Your task to perform on an android device: Open the calendar and show me this week's events Image 0: 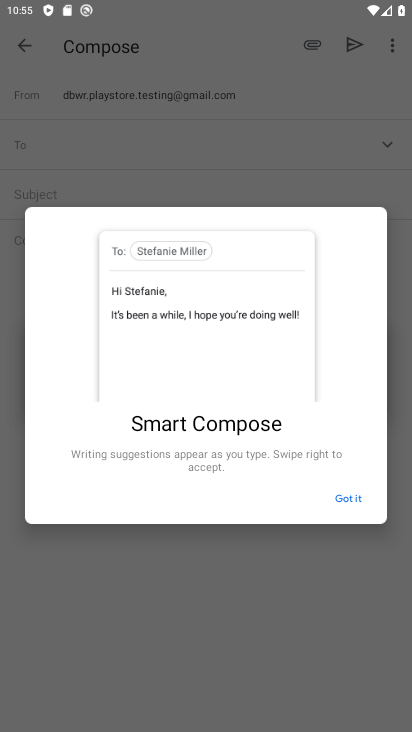
Step 0: press home button
Your task to perform on an android device: Open the calendar and show me this week's events Image 1: 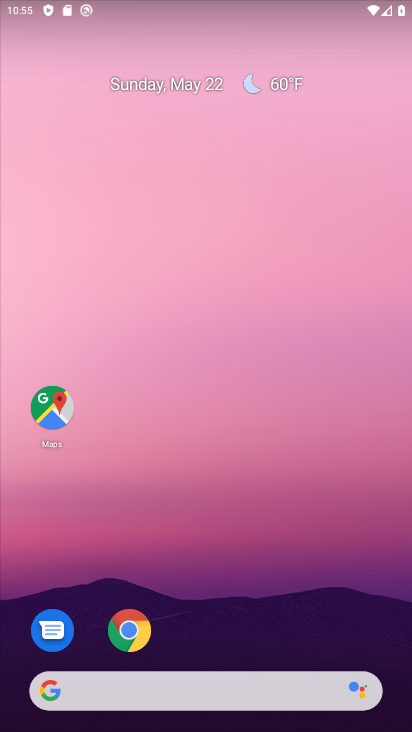
Step 1: drag from (251, 613) to (243, 121)
Your task to perform on an android device: Open the calendar and show me this week's events Image 2: 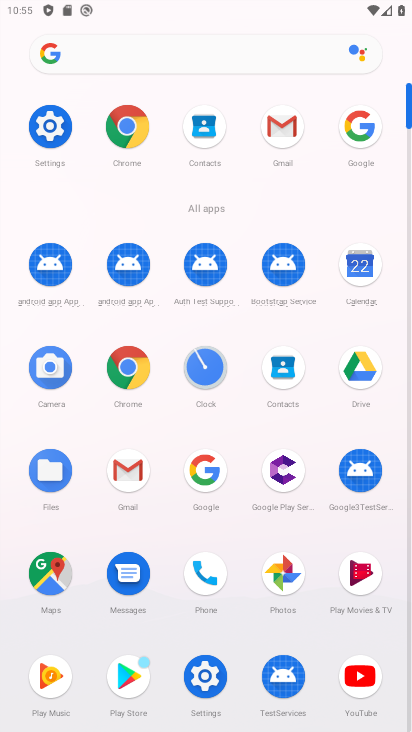
Step 2: click (362, 264)
Your task to perform on an android device: Open the calendar and show me this week's events Image 3: 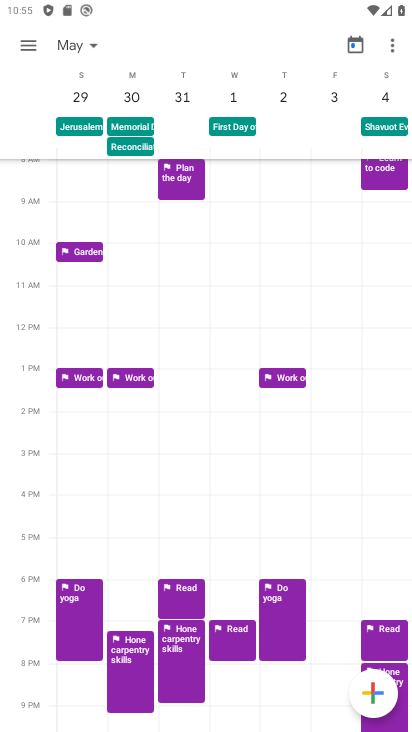
Step 3: click (359, 46)
Your task to perform on an android device: Open the calendar and show me this week's events Image 4: 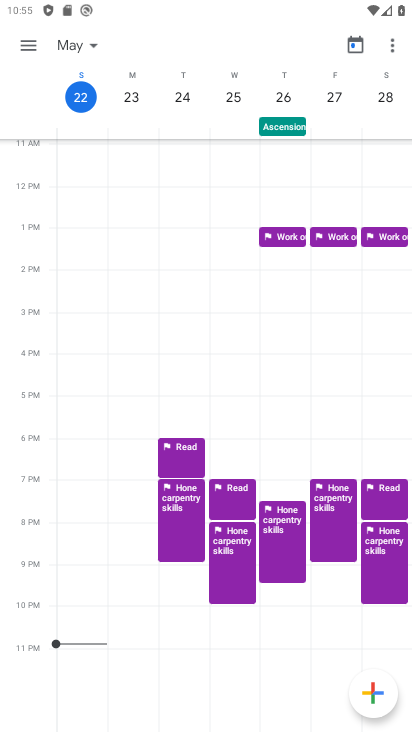
Step 4: click (24, 48)
Your task to perform on an android device: Open the calendar and show me this week's events Image 5: 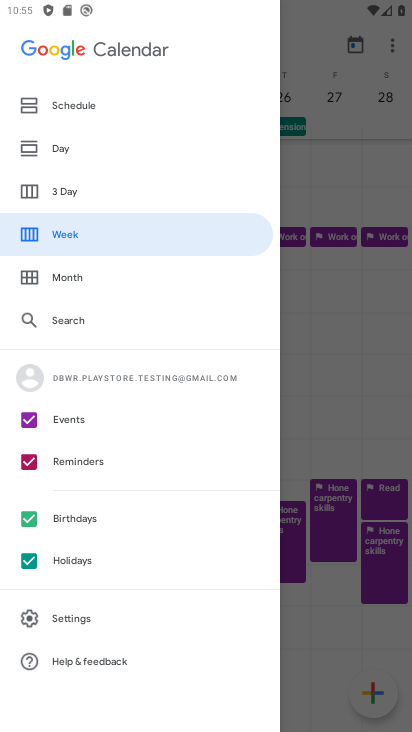
Step 5: click (91, 108)
Your task to perform on an android device: Open the calendar and show me this week's events Image 6: 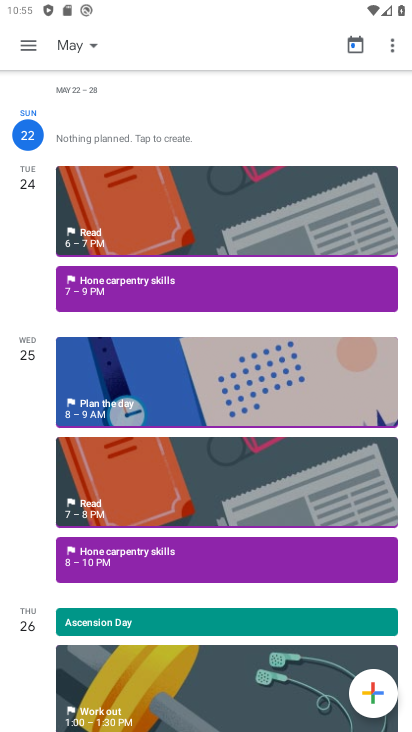
Step 6: task complete